Your task to perform on an android device: Go to Google maps Image 0: 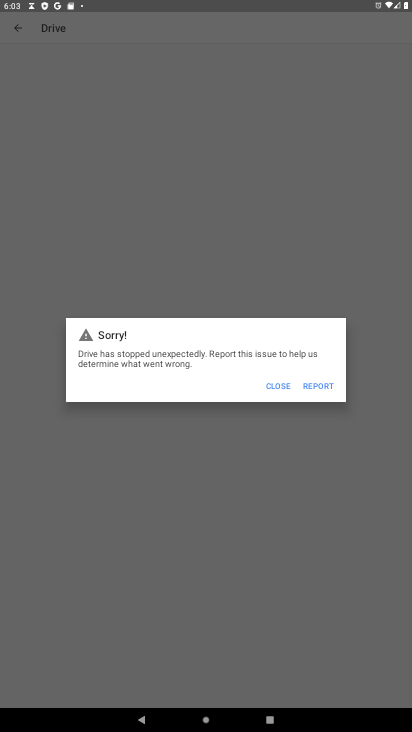
Step 0: press home button
Your task to perform on an android device: Go to Google maps Image 1: 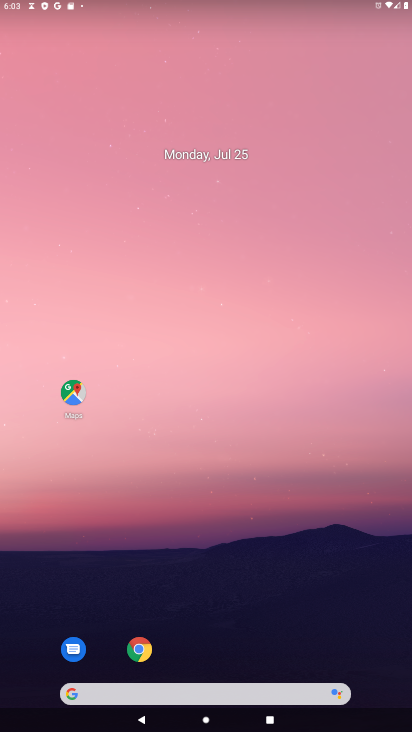
Step 1: drag from (279, 679) to (246, 29)
Your task to perform on an android device: Go to Google maps Image 2: 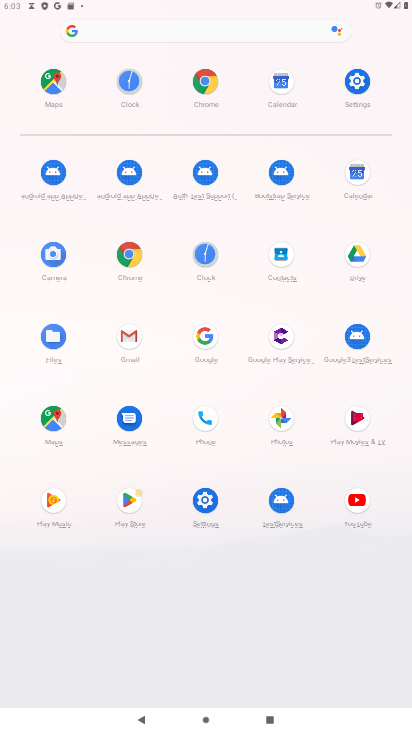
Step 2: click (56, 422)
Your task to perform on an android device: Go to Google maps Image 3: 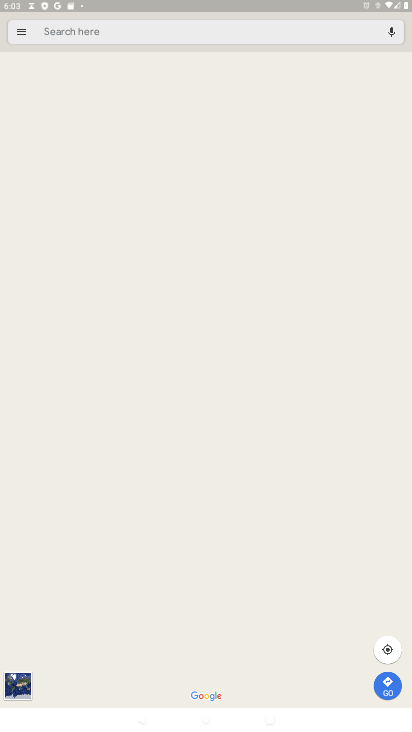
Step 3: task complete